Your task to perform on an android device: Go to CNN.com Image 0: 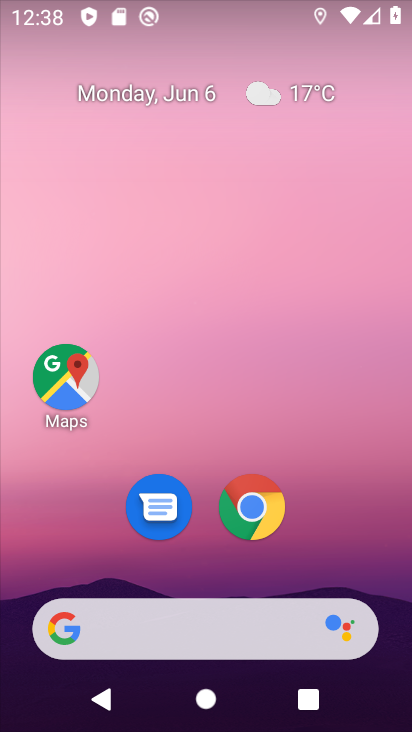
Step 0: click (221, 634)
Your task to perform on an android device: Go to CNN.com Image 1: 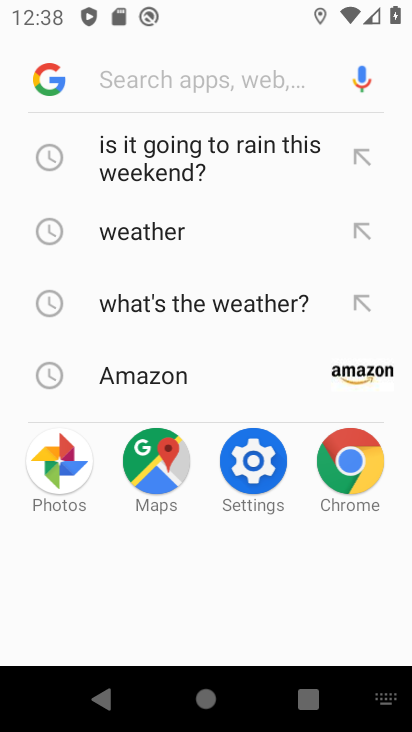
Step 1: type "cnn.com"
Your task to perform on an android device: Go to CNN.com Image 2: 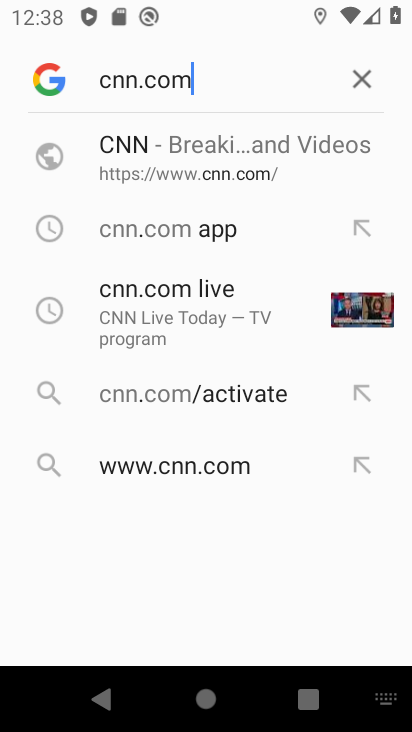
Step 2: click (188, 161)
Your task to perform on an android device: Go to CNN.com Image 3: 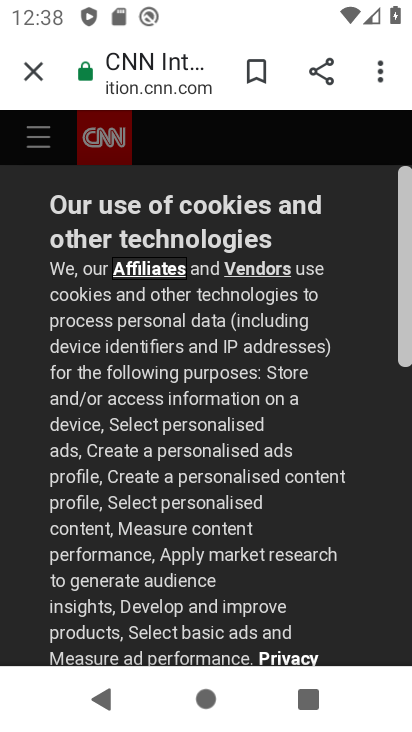
Step 3: task complete